Your task to perform on an android device: toggle wifi Image 0: 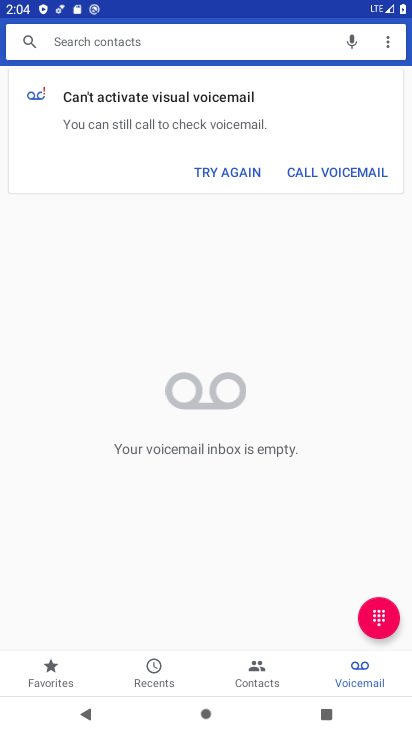
Step 0: press home button
Your task to perform on an android device: toggle wifi Image 1: 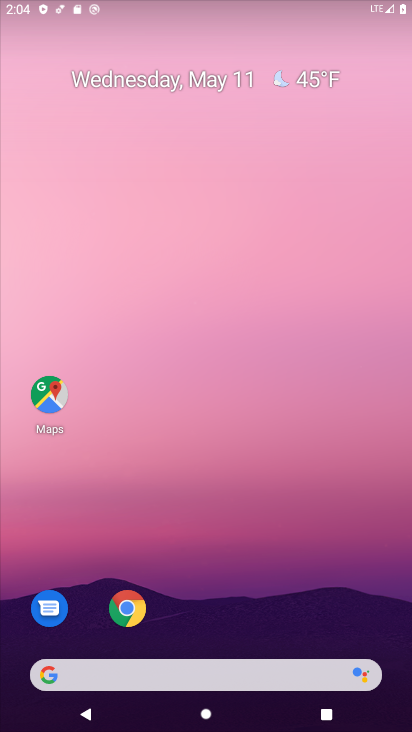
Step 1: drag from (219, 592) to (222, 75)
Your task to perform on an android device: toggle wifi Image 2: 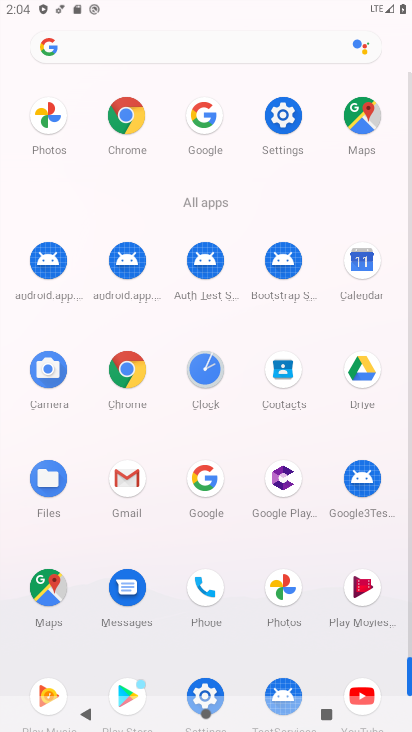
Step 2: click (282, 129)
Your task to perform on an android device: toggle wifi Image 3: 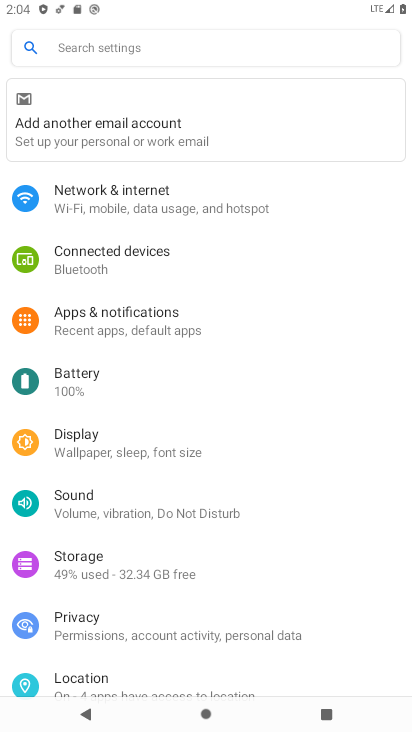
Step 3: click (123, 192)
Your task to perform on an android device: toggle wifi Image 4: 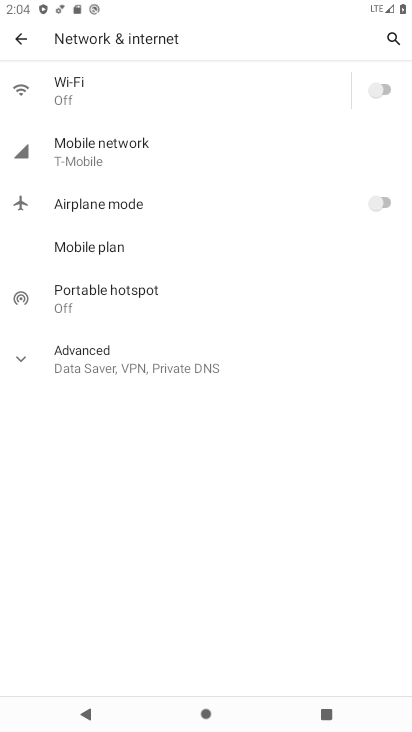
Step 4: click (387, 95)
Your task to perform on an android device: toggle wifi Image 5: 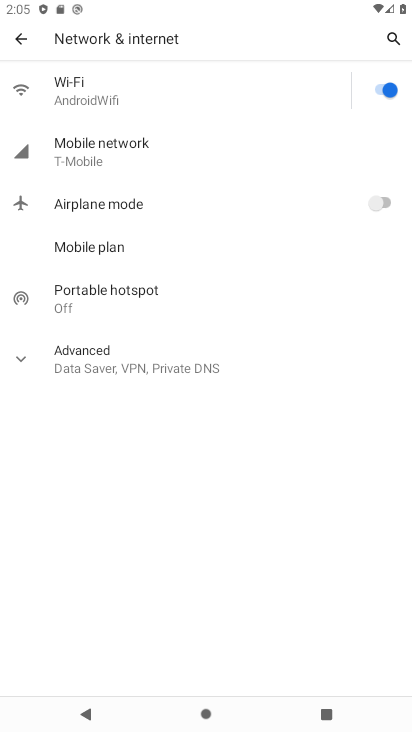
Step 5: task complete